Your task to perform on an android device: toggle sleep mode Image 0: 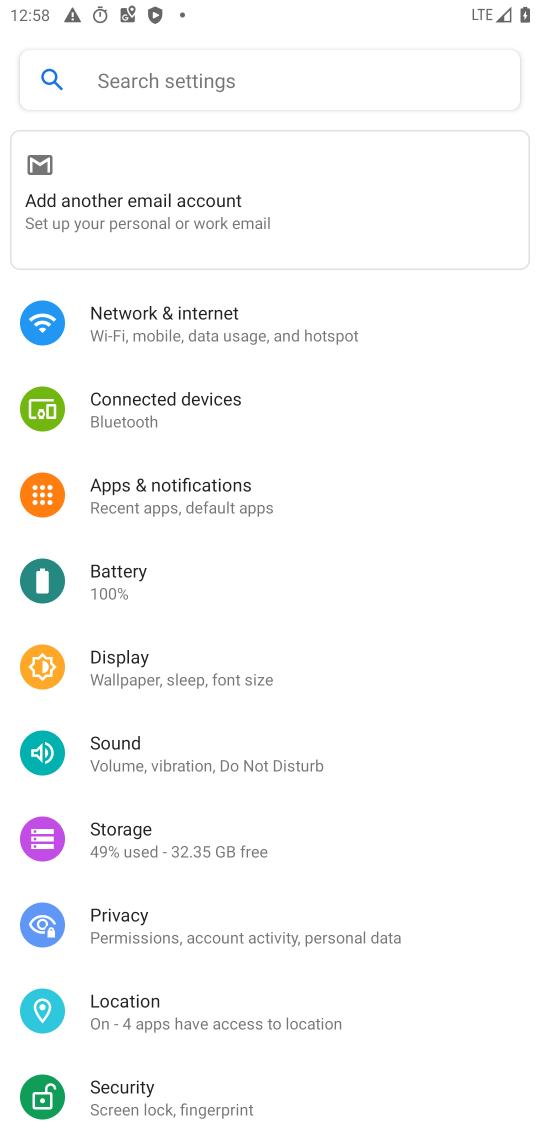
Step 0: press home button
Your task to perform on an android device: toggle sleep mode Image 1: 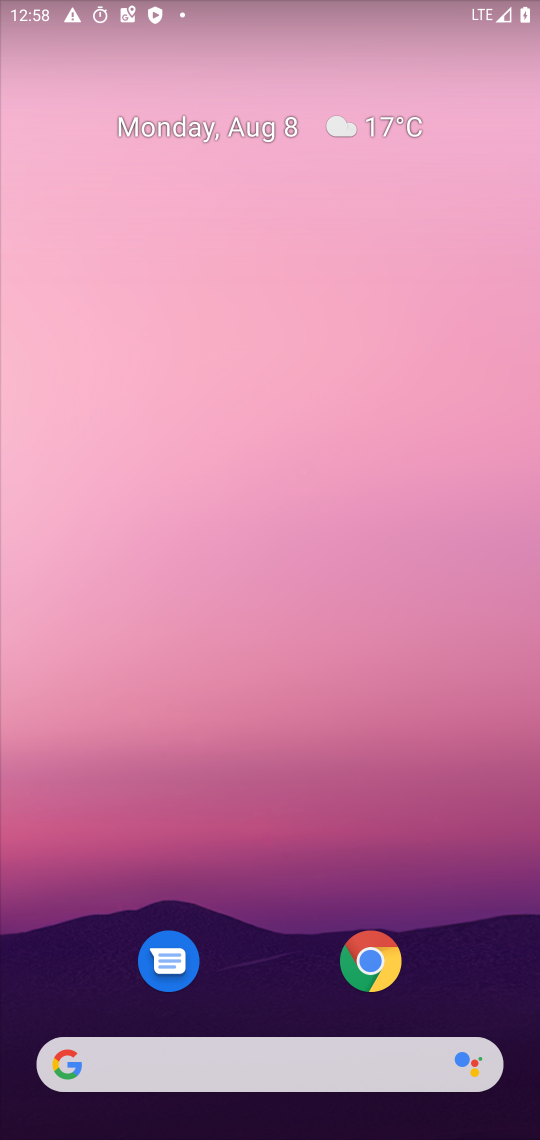
Step 1: drag from (296, 1043) to (337, 147)
Your task to perform on an android device: toggle sleep mode Image 2: 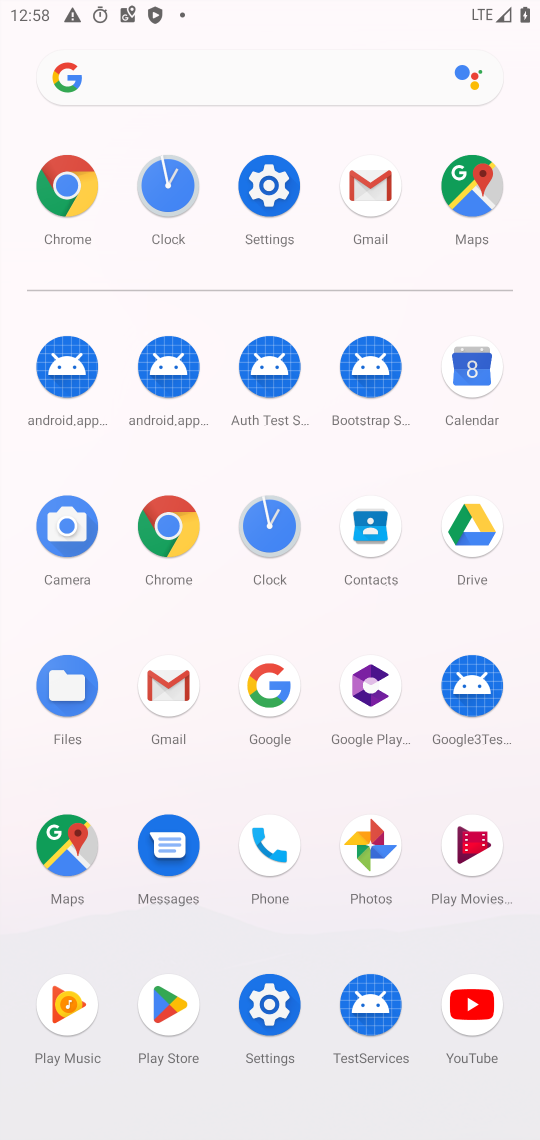
Step 2: click (268, 198)
Your task to perform on an android device: toggle sleep mode Image 3: 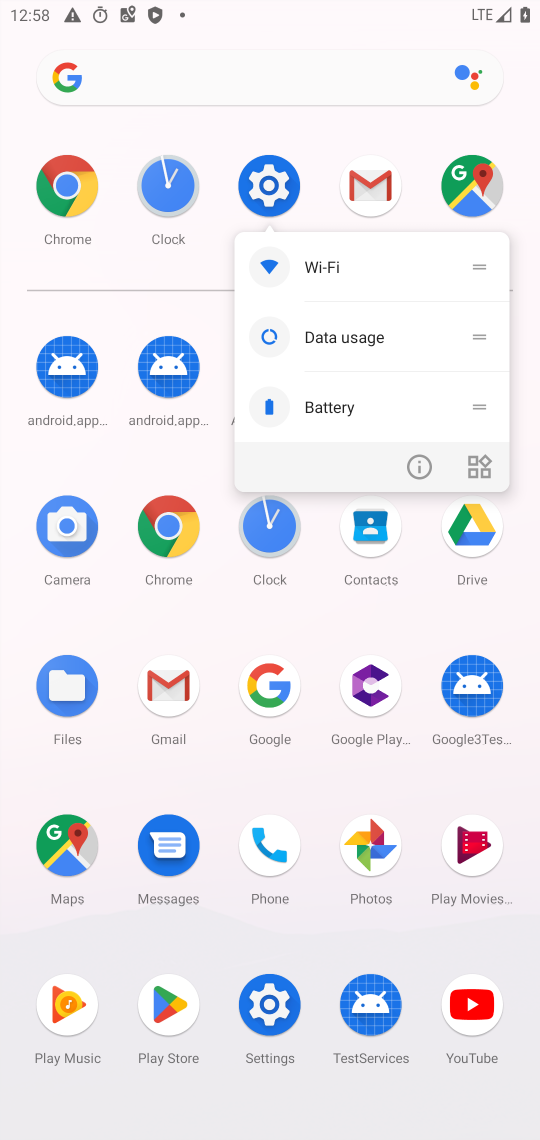
Step 3: click (268, 198)
Your task to perform on an android device: toggle sleep mode Image 4: 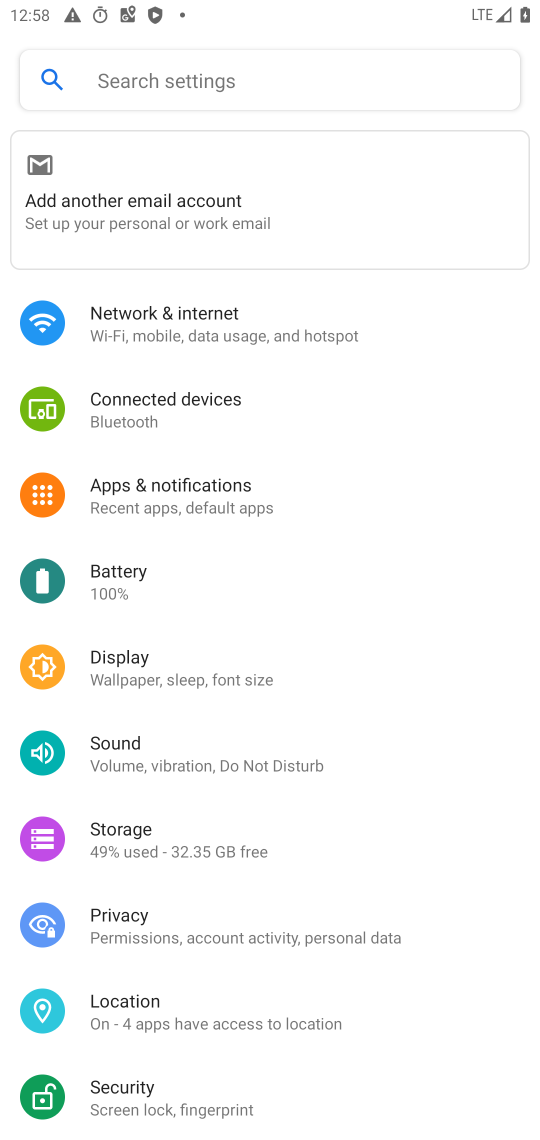
Step 4: click (174, 659)
Your task to perform on an android device: toggle sleep mode Image 5: 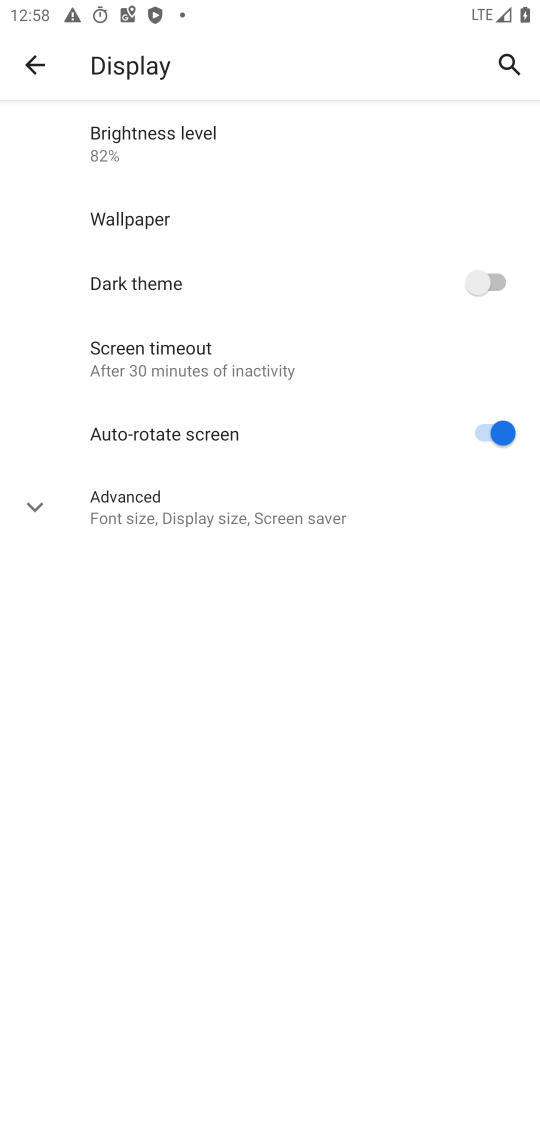
Step 5: task complete